Your task to perform on an android device: move a message to another label in the gmail app Image 0: 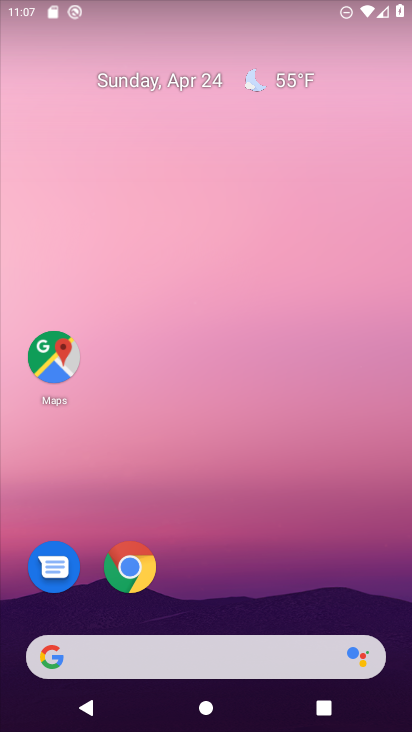
Step 0: drag from (396, 619) to (356, 163)
Your task to perform on an android device: move a message to another label in the gmail app Image 1: 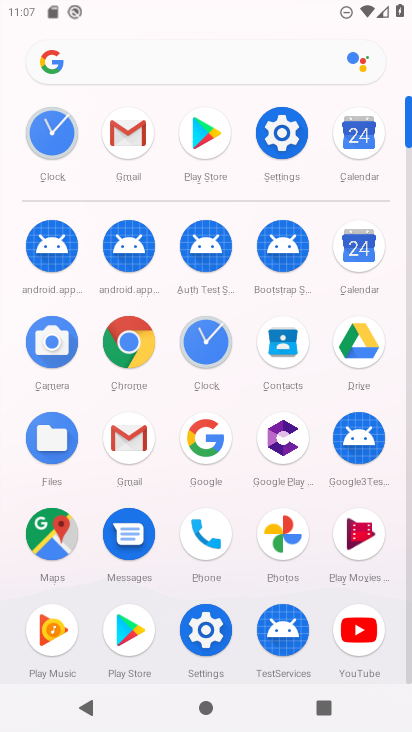
Step 1: click (133, 437)
Your task to perform on an android device: move a message to another label in the gmail app Image 2: 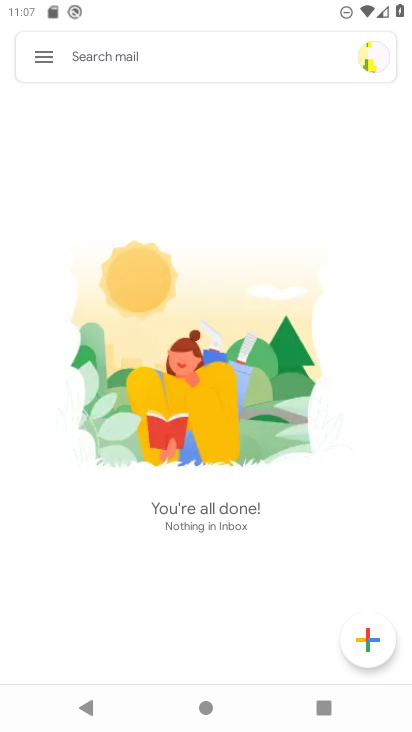
Step 2: click (39, 53)
Your task to perform on an android device: move a message to another label in the gmail app Image 3: 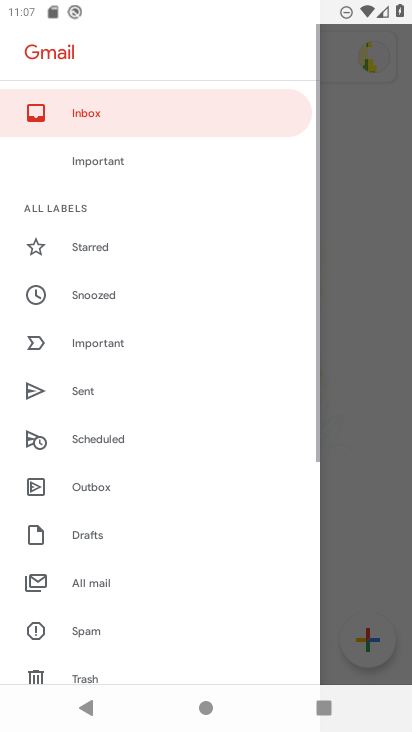
Step 3: click (66, 111)
Your task to perform on an android device: move a message to another label in the gmail app Image 4: 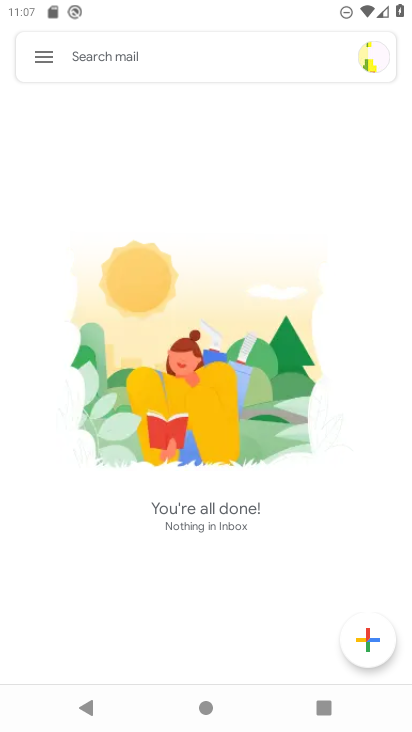
Step 4: task complete